Your task to perform on an android device: Add "macbook pro" to the cart on costco.com, then select checkout. Image 0: 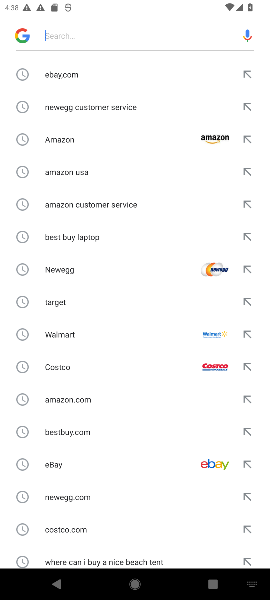
Step 0: click (89, 27)
Your task to perform on an android device: Add "macbook pro" to the cart on costco.com, then select checkout. Image 1: 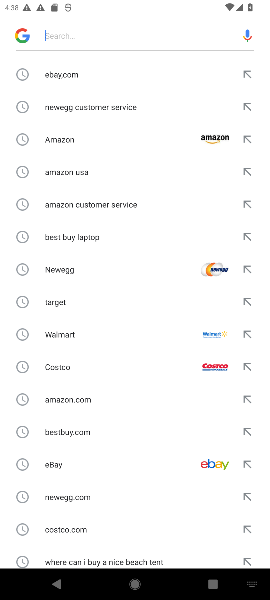
Step 1: type "costco "
Your task to perform on an android device: Add "macbook pro" to the cart on costco.com, then select checkout. Image 2: 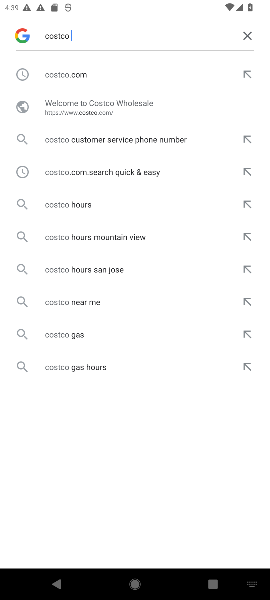
Step 2: click (52, 74)
Your task to perform on an android device: Add "macbook pro" to the cart on costco.com, then select checkout. Image 3: 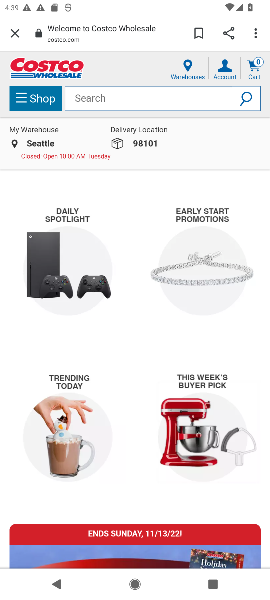
Step 3: click (113, 90)
Your task to perform on an android device: Add "macbook pro" to the cart on costco.com, then select checkout. Image 4: 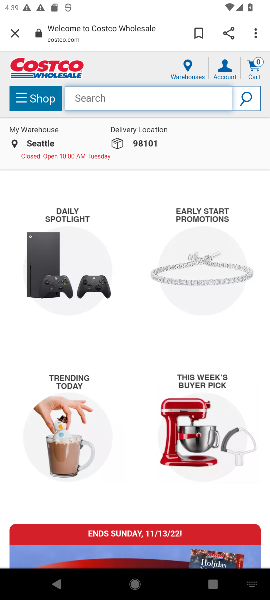
Step 4: click (170, 93)
Your task to perform on an android device: Add "macbook pro" to the cart on costco.com, then select checkout. Image 5: 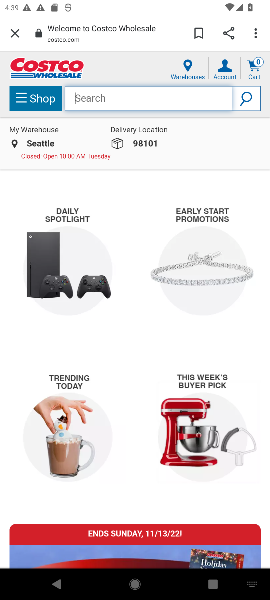
Step 5: type "macbook "
Your task to perform on an android device: Add "macbook pro" to the cart on costco.com, then select checkout. Image 6: 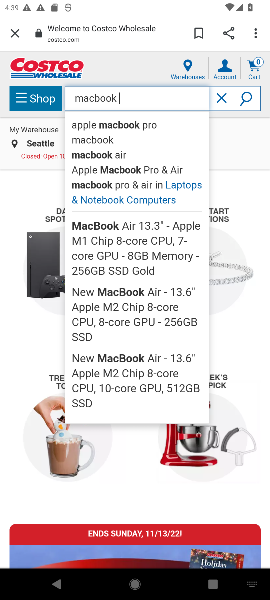
Step 6: click (112, 124)
Your task to perform on an android device: Add "macbook pro" to the cart on costco.com, then select checkout. Image 7: 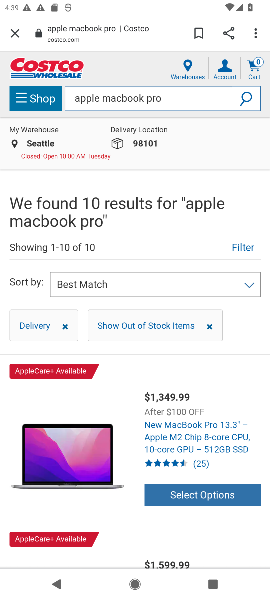
Step 7: drag from (179, 546) to (182, 382)
Your task to perform on an android device: Add "macbook pro" to the cart on costco.com, then select checkout. Image 8: 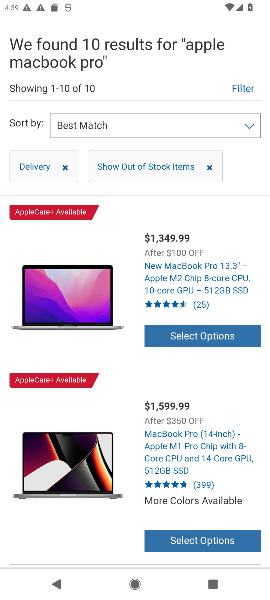
Step 8: click (163, 235)
Your task to perform on an android device: Add "macbook pro" to the cart on costco.com, then select checkout. Image 9: 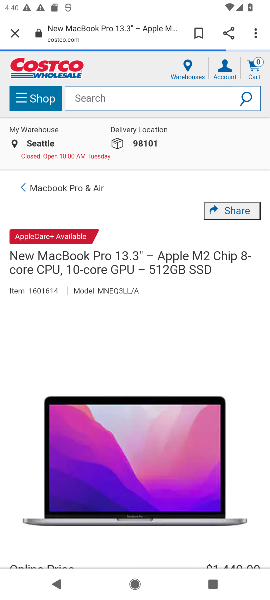
Step 9: drag from (208, 451) to (192, 218)
Your task to perform on an android device: Add "macbook pro" to the cart on costco.com, then select checkout. Image 10: 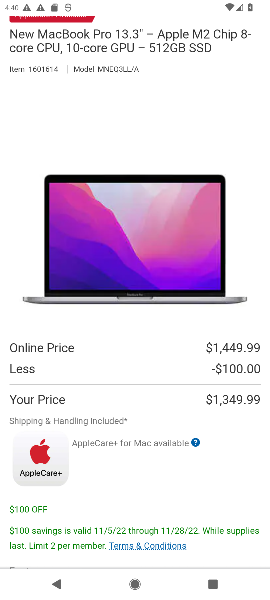
Step 10: drag from (193, 508) to (208, 329)
Your task to perform on an android device: Add "macbook pro" to the cart on costco.com, then select checkout. Image 11: 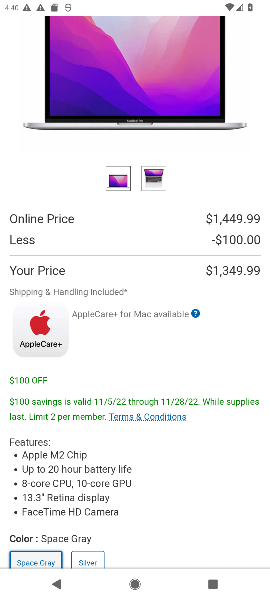
Step 11: drag from (180, 561) to (164, 354)
Your task to perform on an android device: Add "macbook pro" to the cart on costco.com, then select checkout. Image 12: 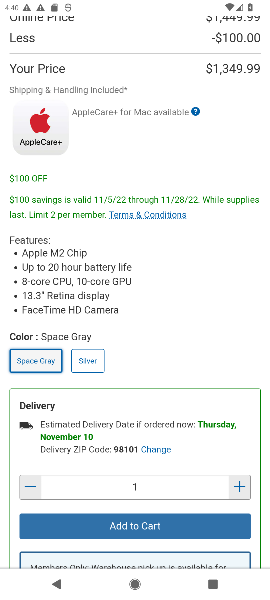
Step 12: click (153, 528)
Your task to perform on an android device: Add "macbook pro" to the cart on costco.com, then select checkout. Image 13: 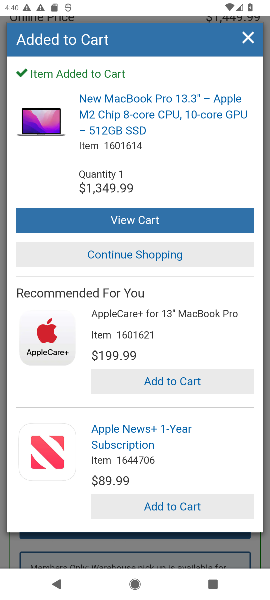
Step 13: task complete